Your task to perform on an android device: What's a good restaurant in San Francisco? Image 0: 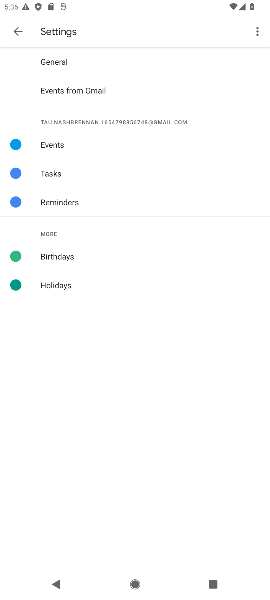
Step 0: press home button
Your task to perform on an android device: What's a good restaurant in San Francisco? Image 1: 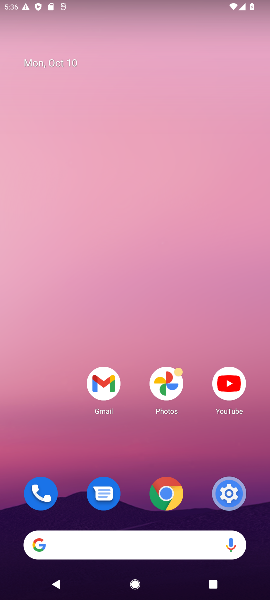
Step 1: click (140, 540)
Your task to perform on an android device: What's a good restaurant in San Francisco? Image 2: 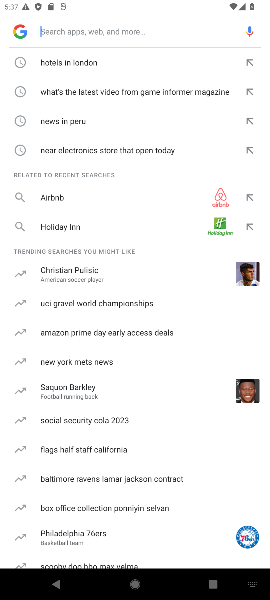
Step 2: type "a good restaurant in San Francisco?"
Your task to perform on an android device: What's a good restaurant in San Francisco? Image 3: 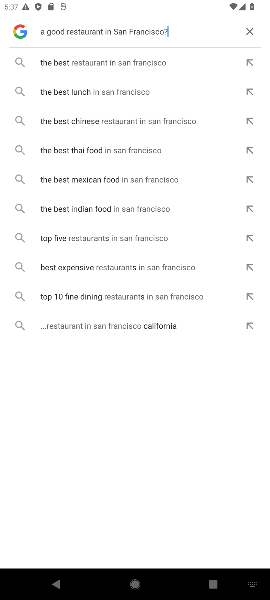
Step 3: click (138, 59)
Your task to perform on an android device: What's a good restaurant in San Francisco? Image 4: 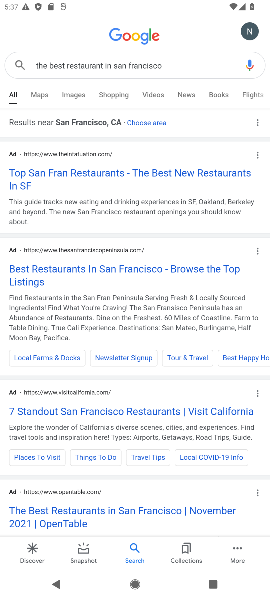
Step 4: task complete